Your task to perform on an android device: Go to sound settings Image 0: 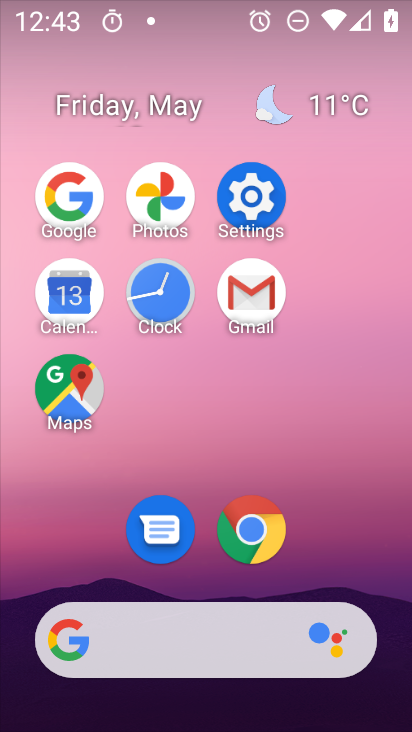
Step 0: click (251, 203)
Your task to perform on an android device: Go to sound settings Image 1: 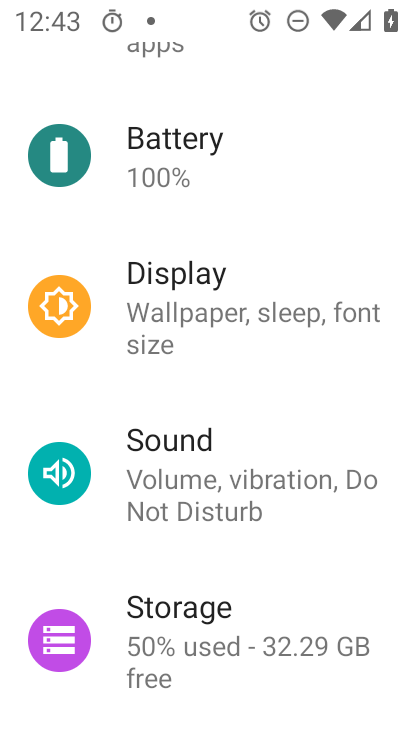
Step 1: click (264, 489)
Your task to perform on an android device: Go to sound settings Image 2: 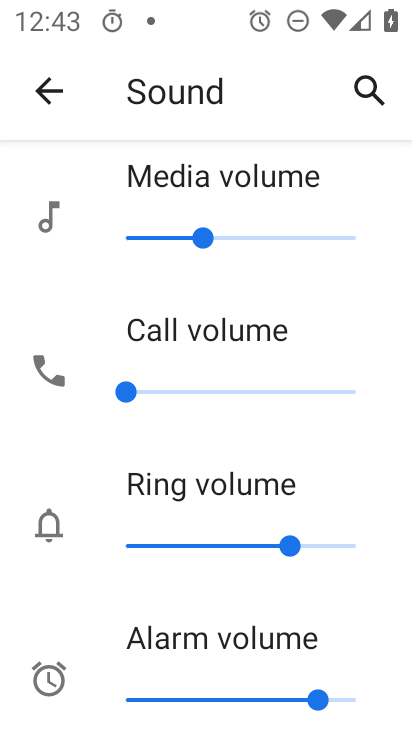
Step 2: task complete